Your task to perform on an android device: allow cookies in the chrome app Image 0: 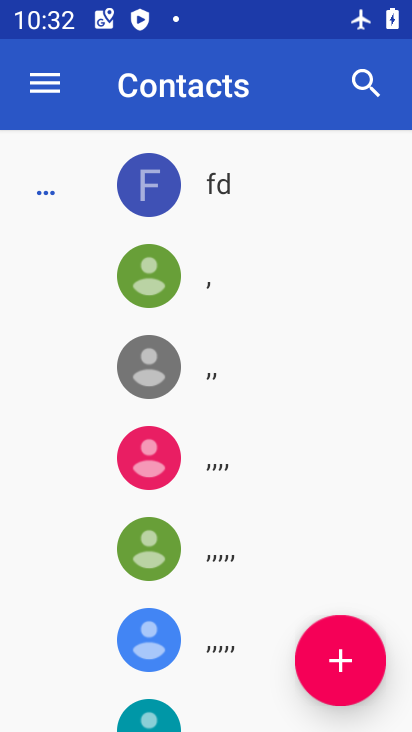
Step 0: press home button
Your task to perform on an android device: allow cookies in the chrome app Image 1: 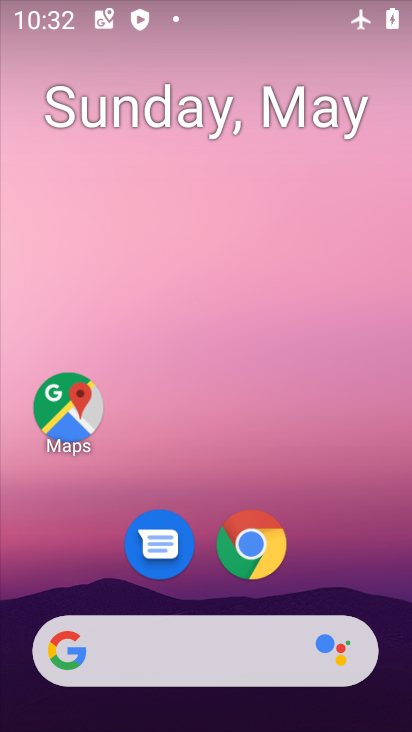
Step 1: drag from (331, 483) to (325, 267)
Your task to perform on an android device: allow cookies in the chrome app Image 2: 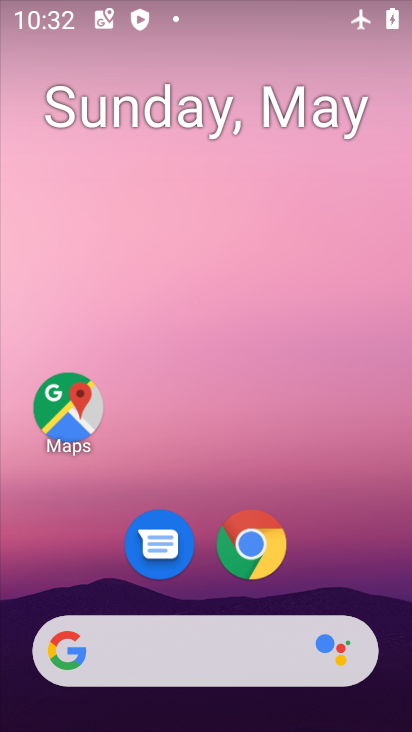
Step 2: drag from (310, 560) to (330, 265)
Your task to perform on an android device: allow cookies in the chrome app Image 3: 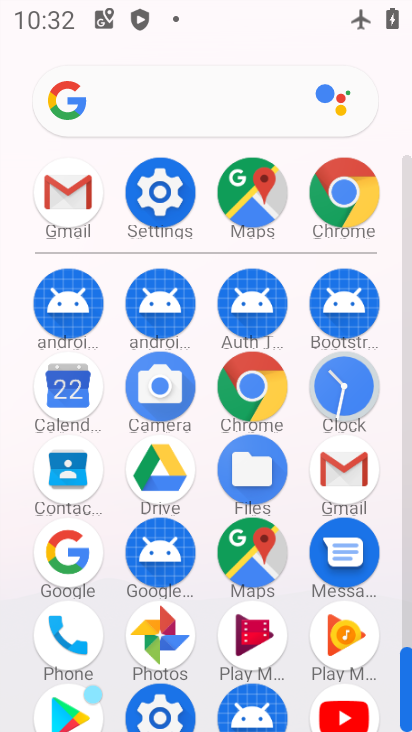
Step 3: click (261, 395)
Your task to perform on an android device: allow cookies in the chrome app Image 4: 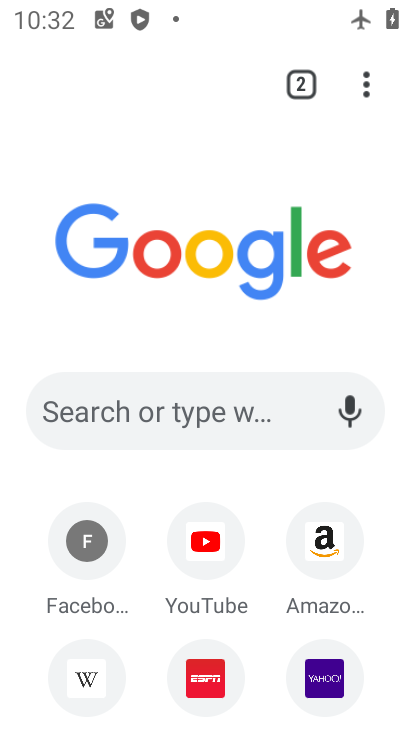
Step 4: click (388, 72)
Your task to perform on an android device: allow cookies in the chrome app Image 5: 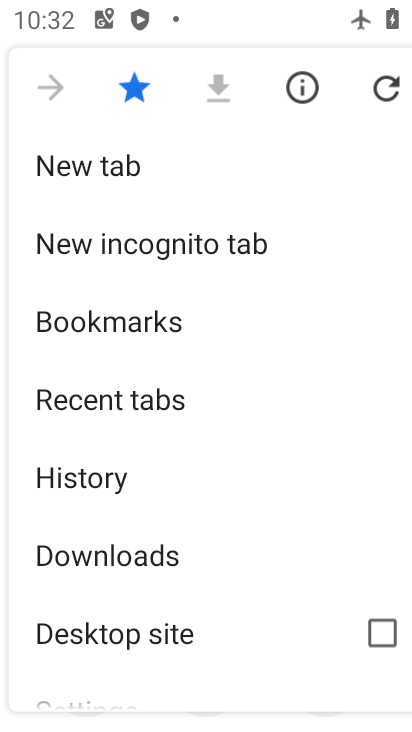
Step 5: drag from (145, 572) to (183, 223)
Your task to perform on an android device: allow cookies in the chrome app Image 6: 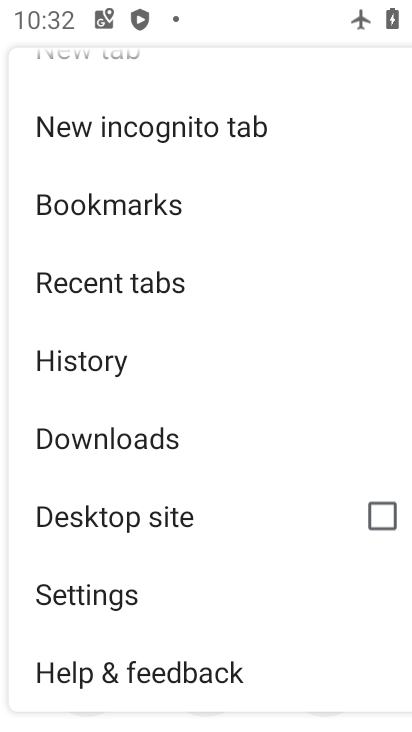
Step 6: click (110, 588)
Your task to perform on an android device: allow cookies in the chrome app Image 7: 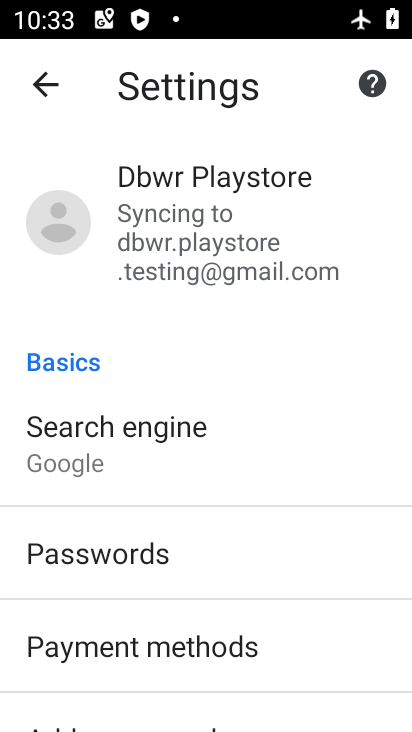
Step 7: drag from (171, 649) to (245, 132)
Your task to perform on an android device: allow cookies in the chrome app Image 8: 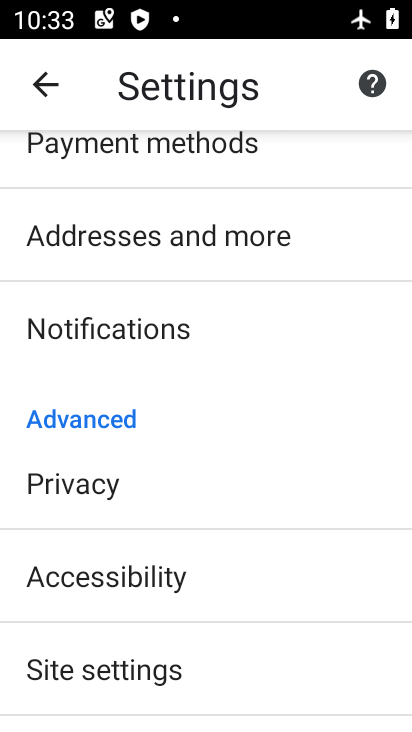
Step 8: click (150, 663)
Your task to perform on an android device: allow cookies in the chrome app Image 9: 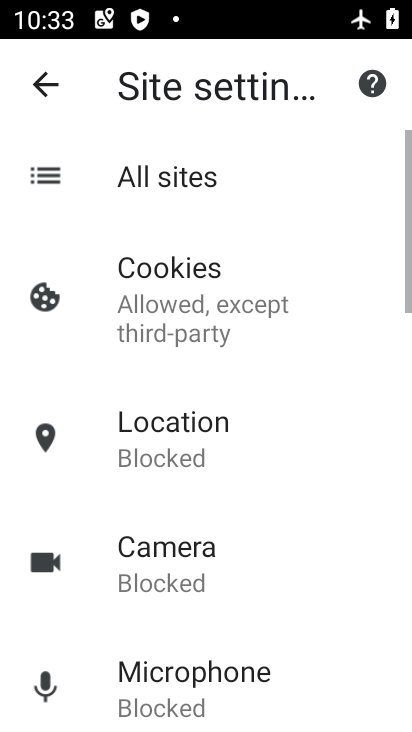
Step 9: click (204, 337)
Your task to perform on an android device: allow cookies in the chrome app Image 10: 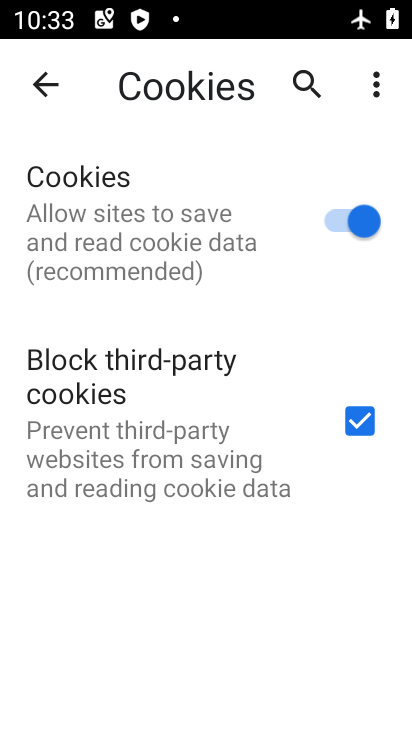
Step 10: task complete